Your task to perform on an android device: refresh tabs in the chrome app Image 0: 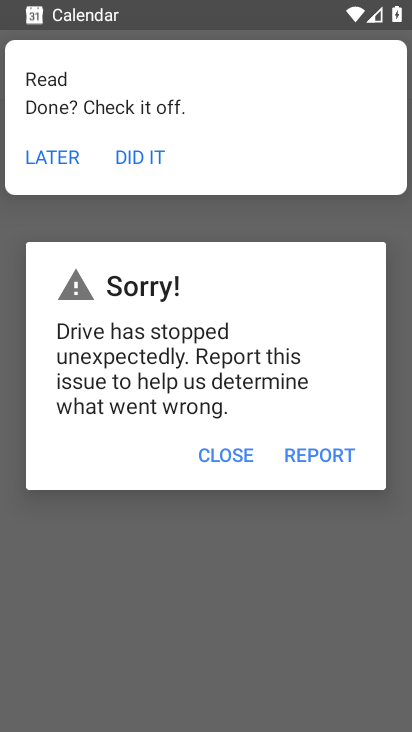
Step 0: press home button
Your task to perform on an android device: refresh tabs in the chrome app Image 1: 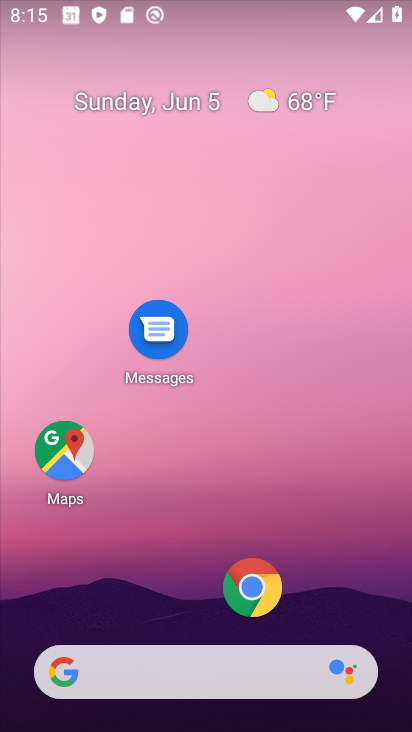
Step 1: drag from (307, 587) to (325, 275)
Your task to perform on an android device: refresh tabs in the chrome app Image 2: 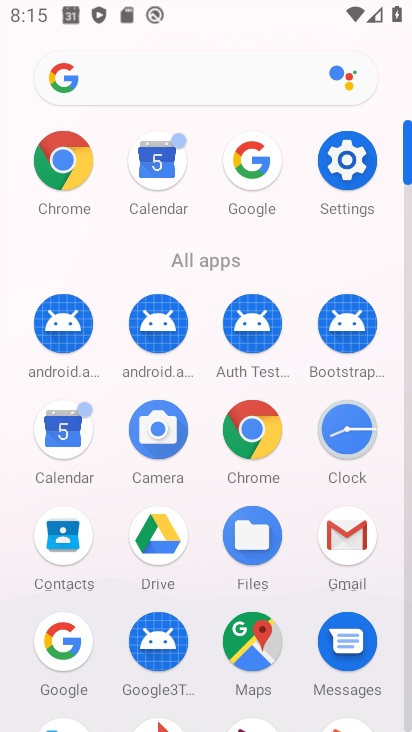
Step 2: click (247, 452)
Your task to perform on an android device: refresh tabs in the chrome app Image 3: 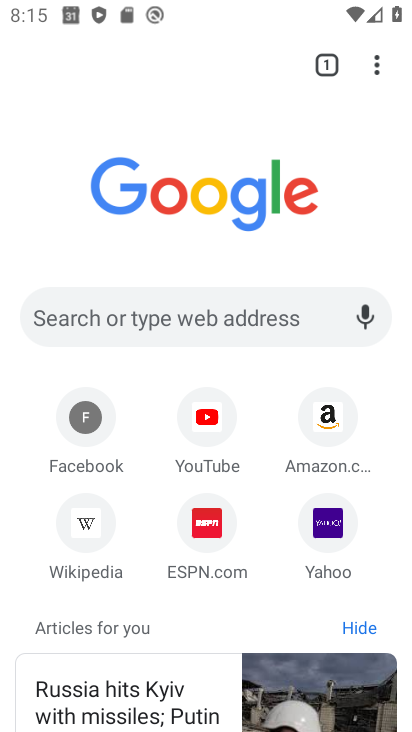
Step 3: click (385, 73)
Your task to perform on an android device: refresh tabs in the chrome app Image 4: 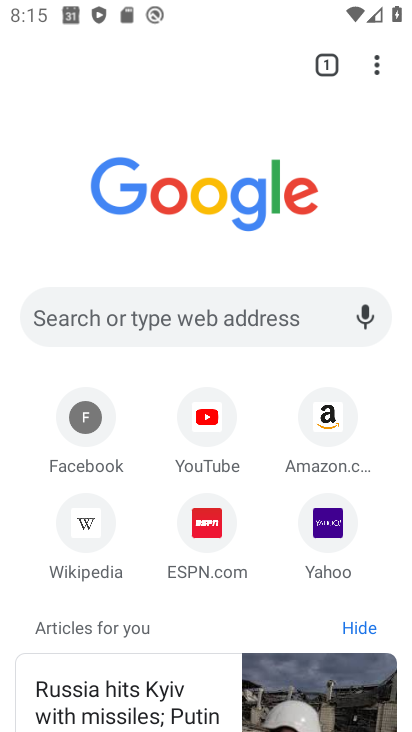
Step 4: click (383, 87)
Your task to perform on an android device: refresh tabs in the chrome app Image 5: 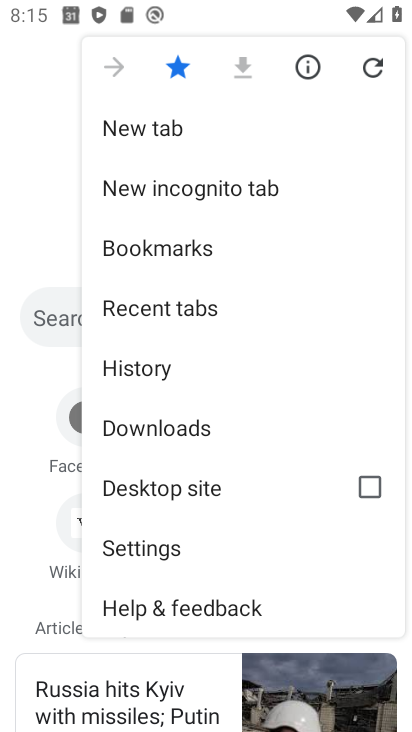
Step 5: click (382, 69)
Your task to perform on an android device: refresh tabs in the chrome app Image 6: 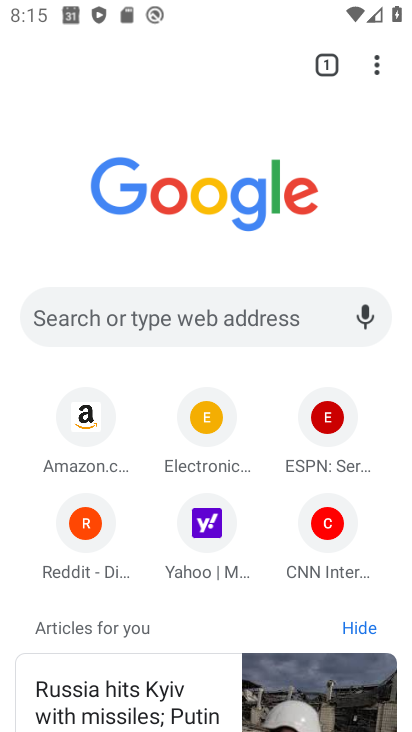
Step 6: task complete